Your task to perform on an android device: open a new tab in the chrome app Image 0: 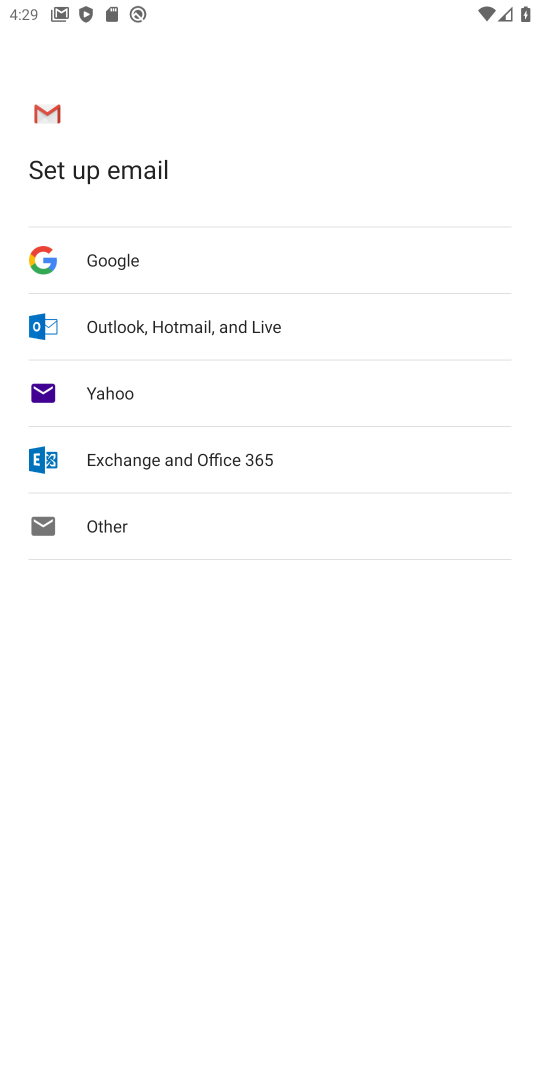
Step 0: press back button
Your task to perform on an android device: open a new tab in the chrome app Image 1: 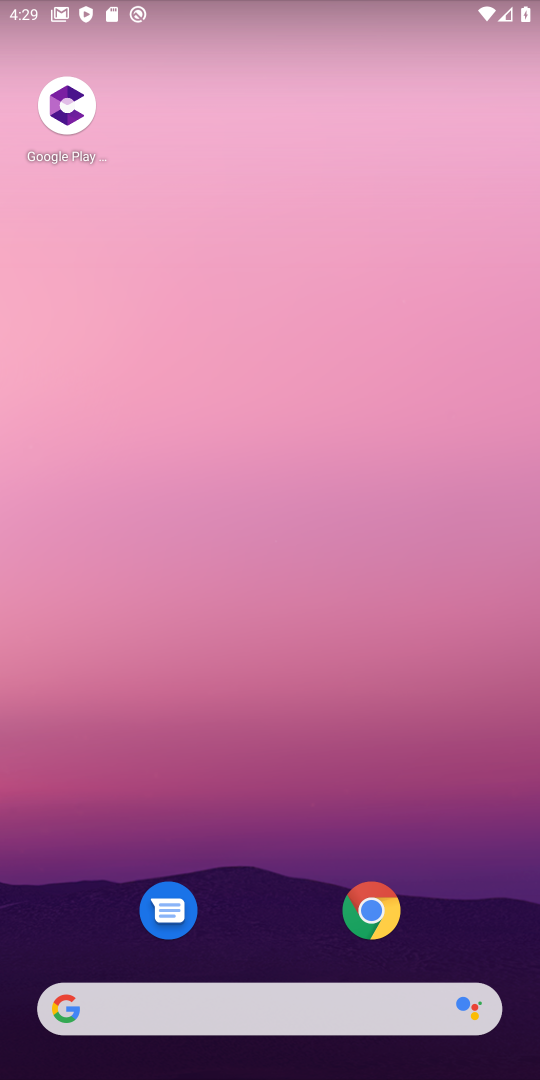
Step 1: drag from (333, 743) to (322, 442)
Your task to perform on an android device: open a new tab in the chrome app Image 2: 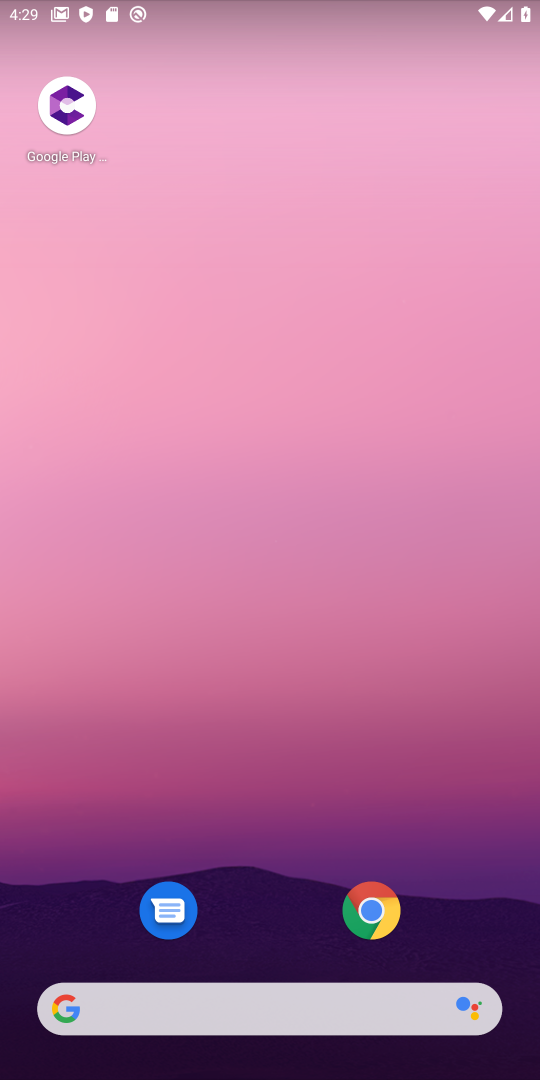
Step 2: drag from (327, 677) to (319, 504)
Your task to perform on an android device: open a new tab in the chrome app Image 3: 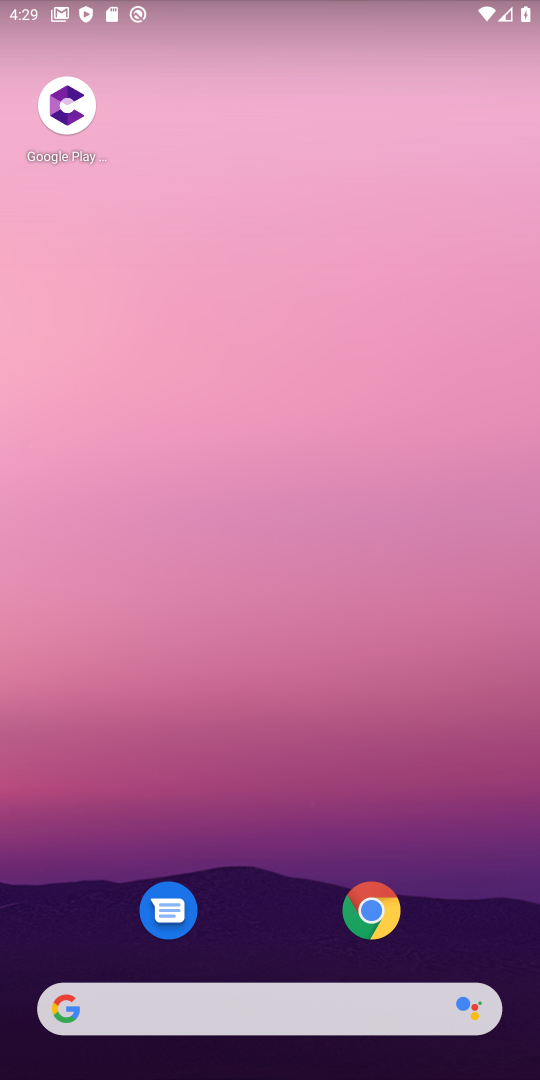
Step 3: drag from (368, 965) to (194, 184)
Your task to perform on an android device: open a new tab in the chrome app Image 4: 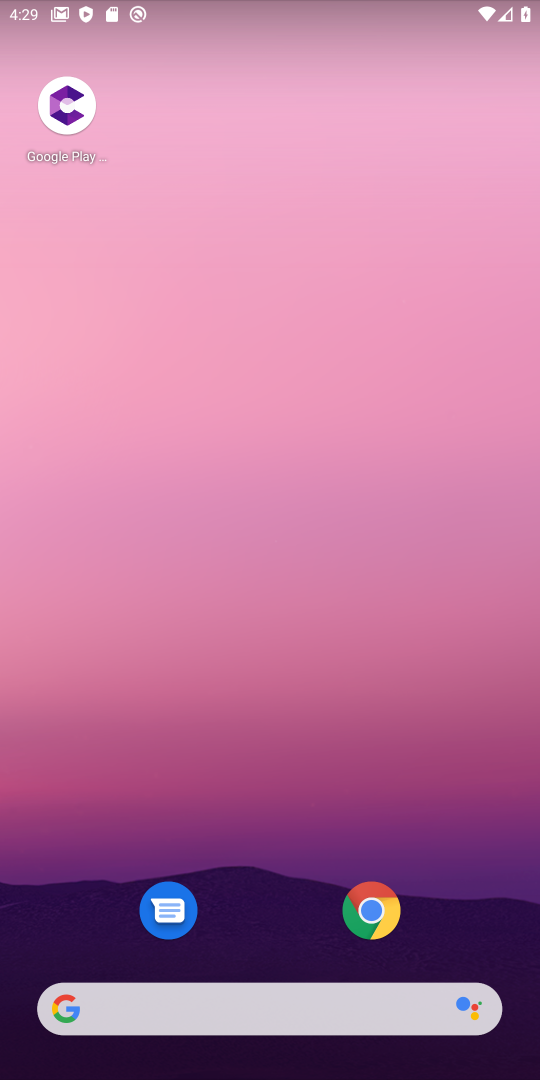
Step 4: click (127, 119)
Your task to perform on an android device: open a new tab in the chrome app Image 5: 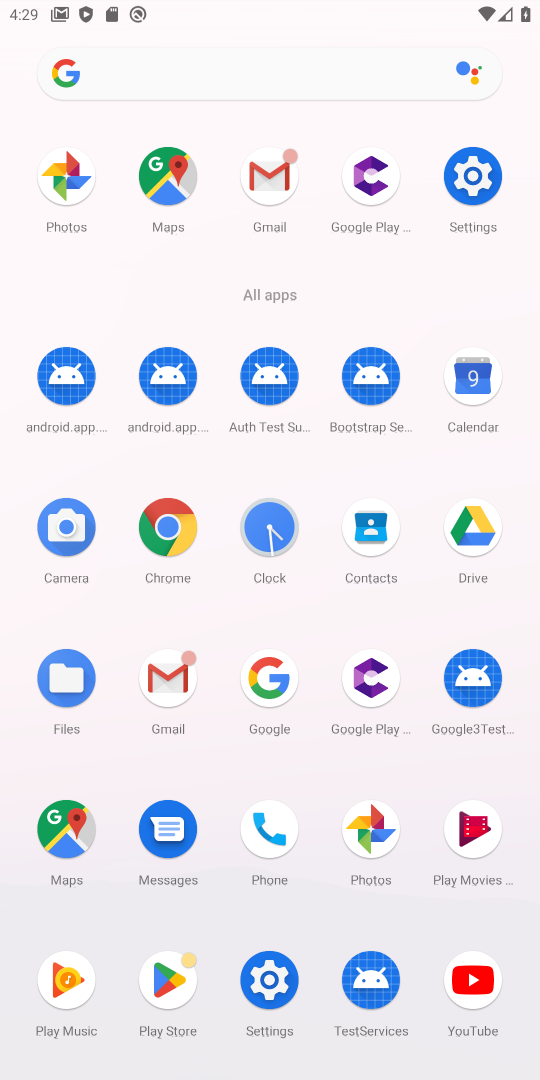
Step 5: click (171, 530)
Your task to perform on an android device: open a new tab in the chrome app Image 6: 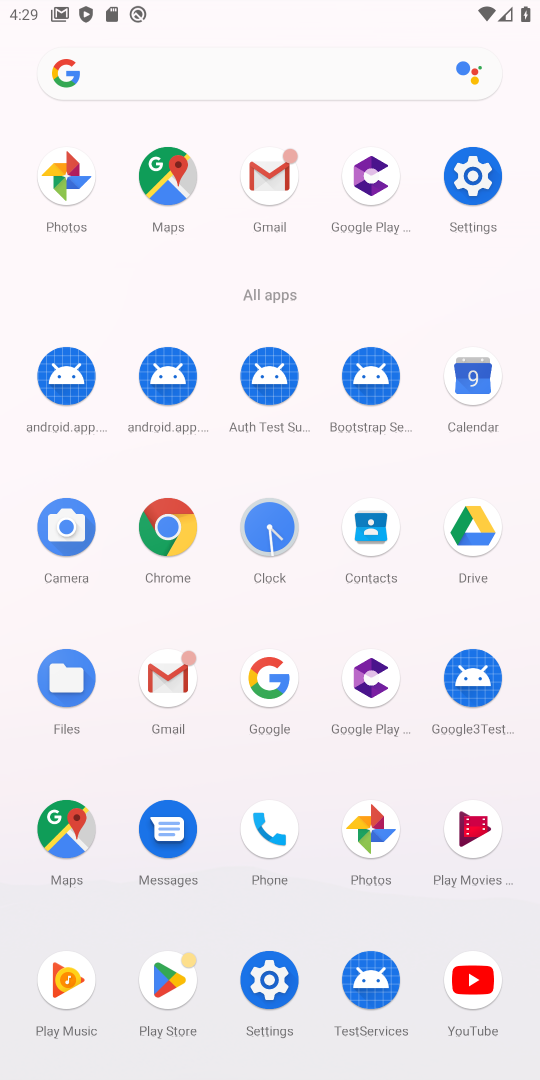
Step 6: click (170, 532)
Your task to perform on an android device: open a new tab in the chrome app Image 7: 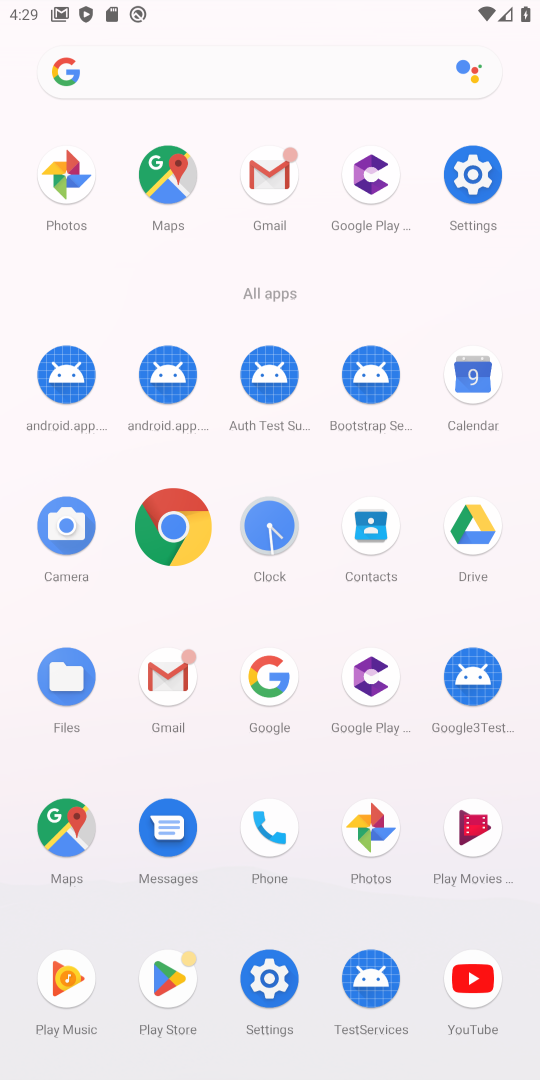
Step 7: click (179, 541)
Your task to perform on an android device: open a new tab in the chrome app Image 8: 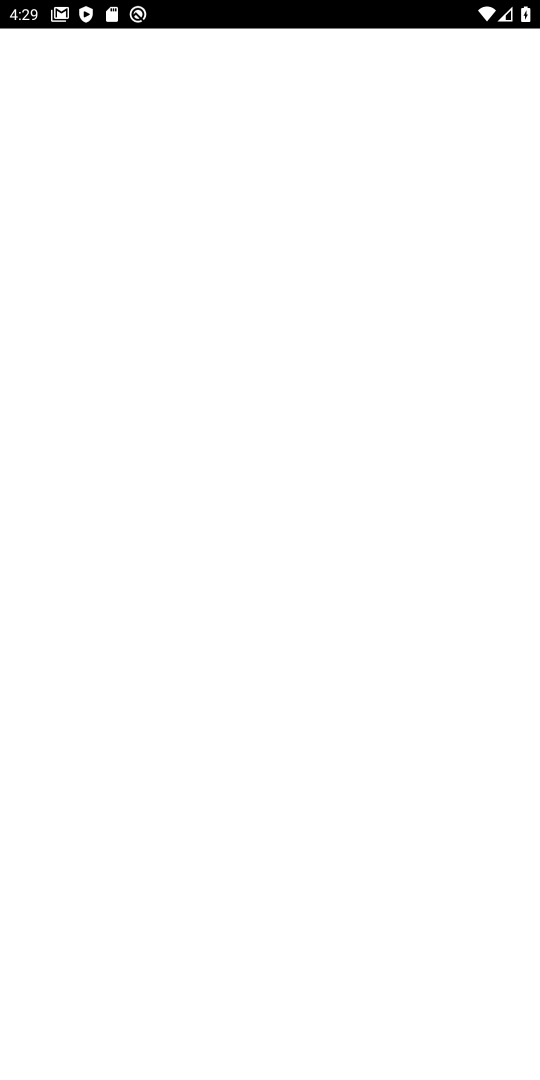
Step 8: click (180, 543)
Your task to perform on an android device: open a new tab in the chrome app Image 9: 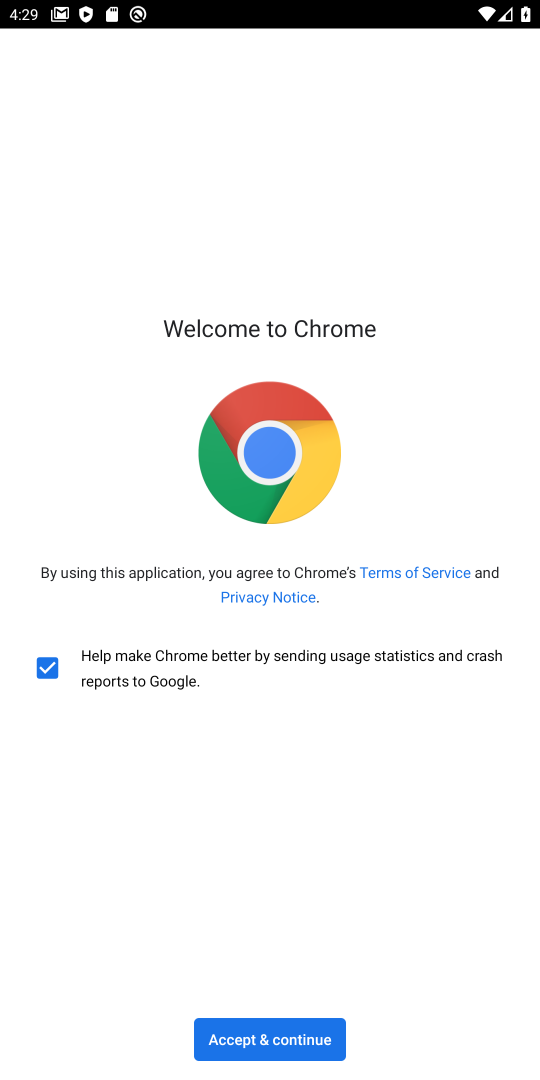
Step 9: click (295, 1039)
Your task to perform on an android device: open a new tab in the chrome app Image 10: 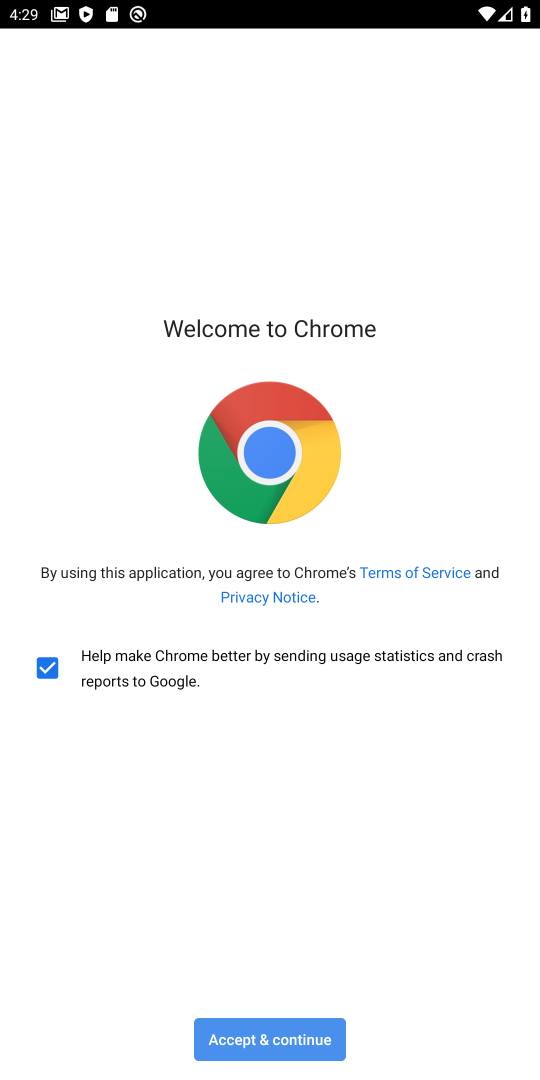
Step 10: click (299, 1036)
Your task to perform on an android device: open a new tab in the chrome app Image 11: 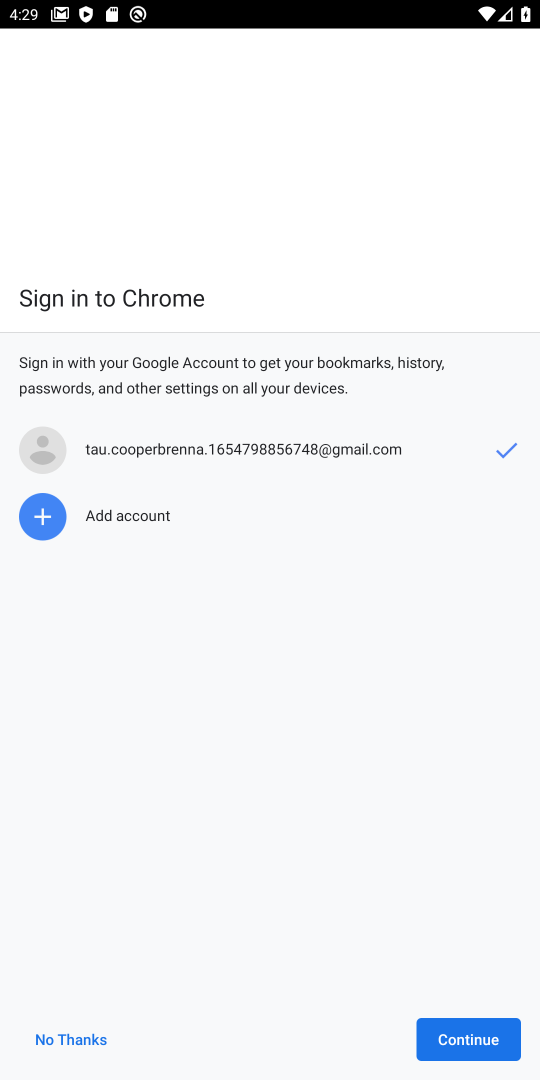
Step 11: click (293, 1036)
Your task to perform on an android device: open a new tab in the chrome app Image 12: 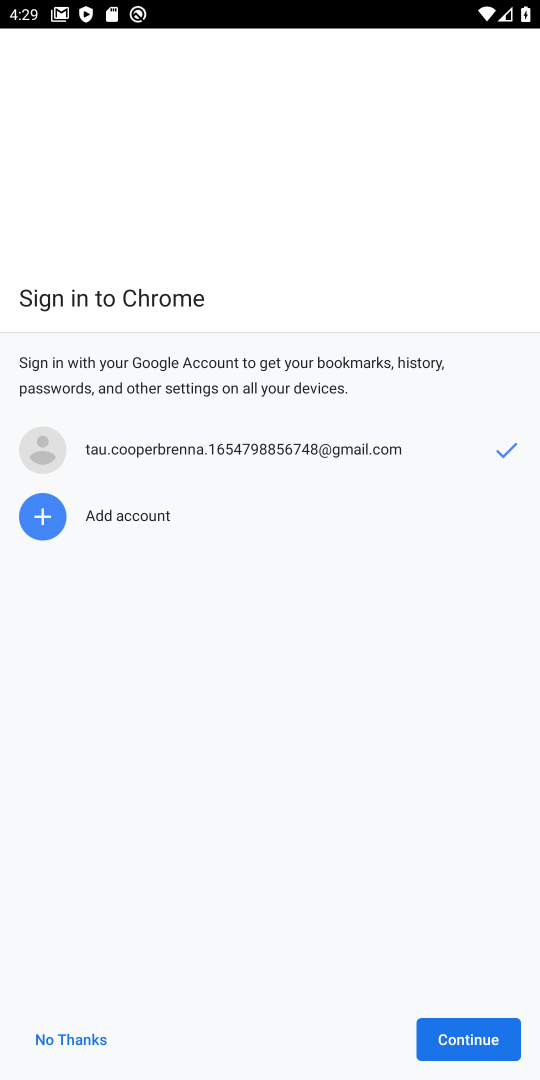
Step 12: click (80, 1037)
Your task to perform on an android device: open a new tab in the chrome app Image 13: 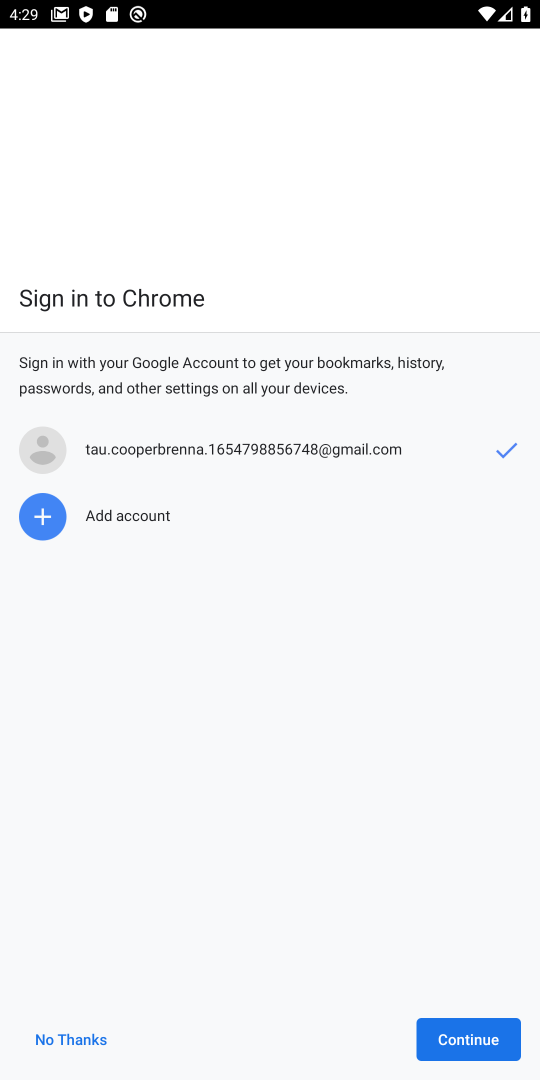
Step 13: click (80, 1037)
Your task to perform on an android device: open a new tab in the chrome app Image 14: 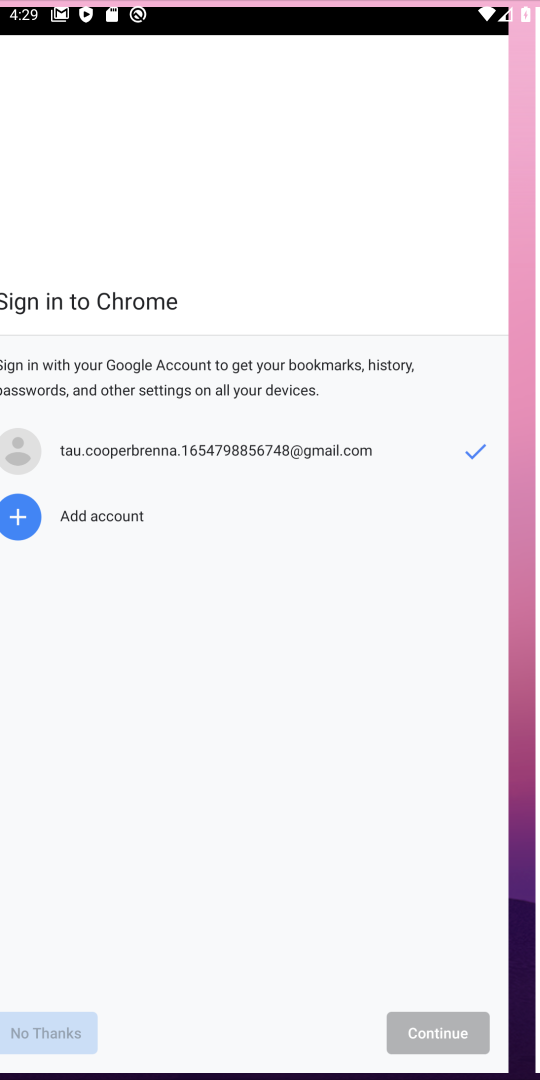
Step 14: click (80, 1037)
Your task to perform on an android device: open a new tab in the chrome app Image 15: 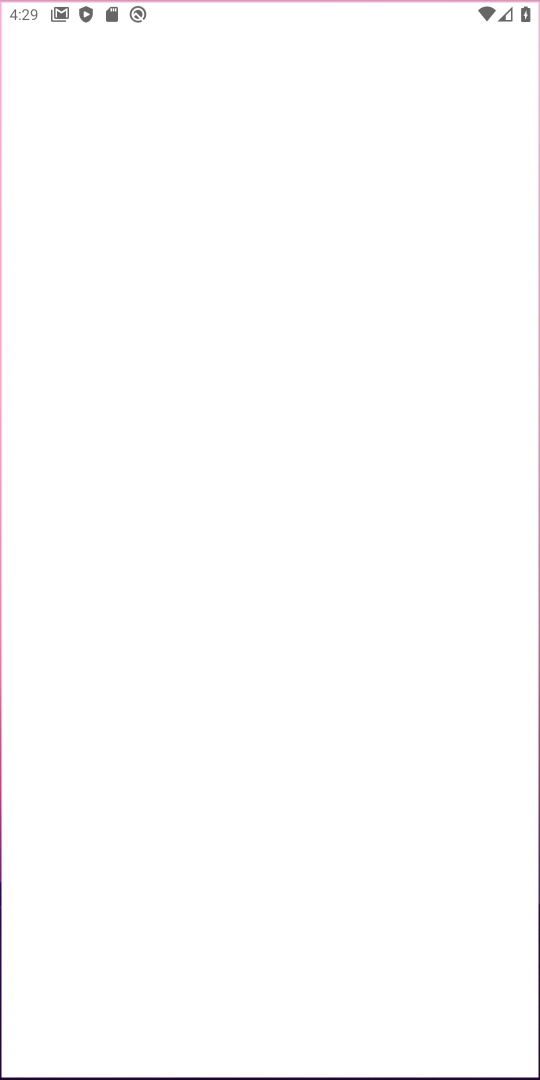
Step 15: click (80, 1037)
Your task to perform on an android device: open a new tab in the chrome app Image 16: 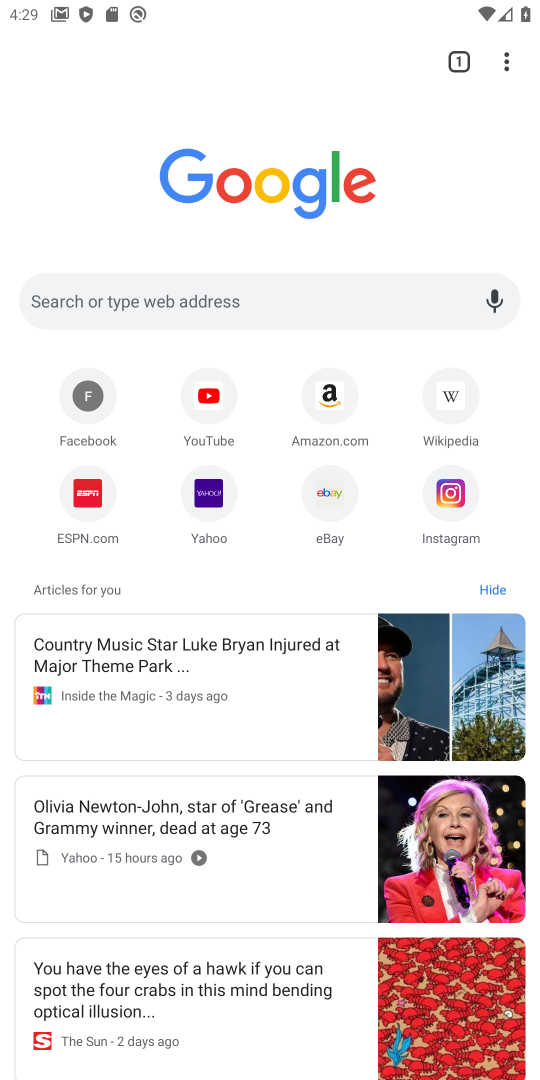
Step 16: drag from (504, 60) to (397, 673)
Your task to perform on an android device: open a new tab in the chrome app Image 17: 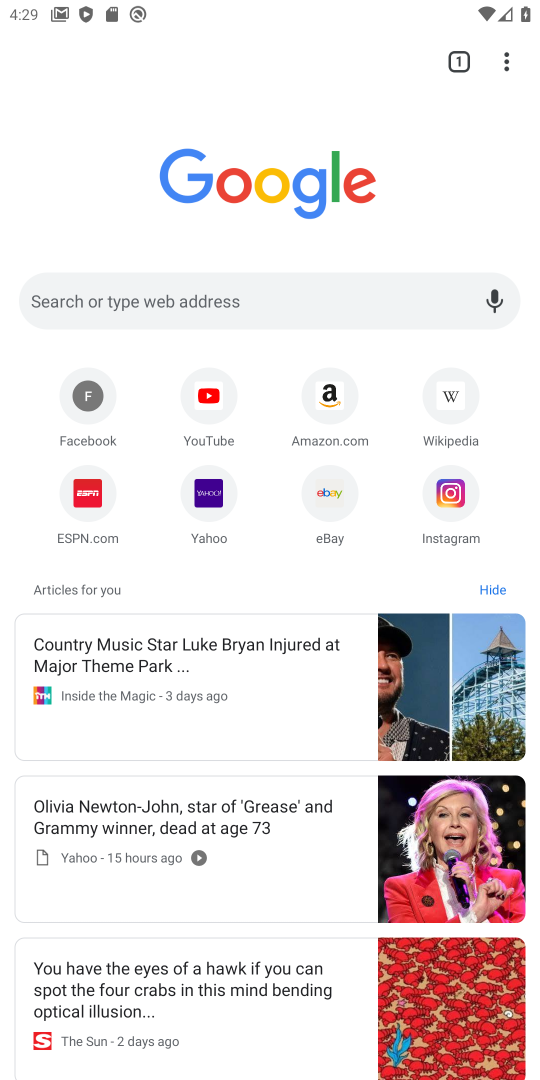
Step 17: click (254, 98)
Your task to perform on an android device: open a new tab in the chrome app Image 18: 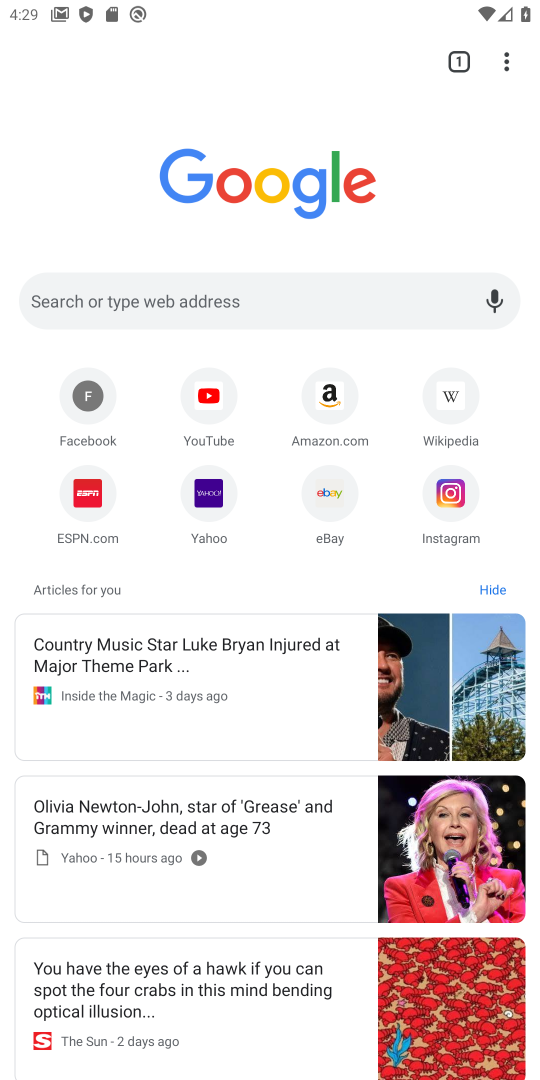
Step 18: click (254, 97)
Your task to perform on an android device: open a new tab in the chrome app Image 19: 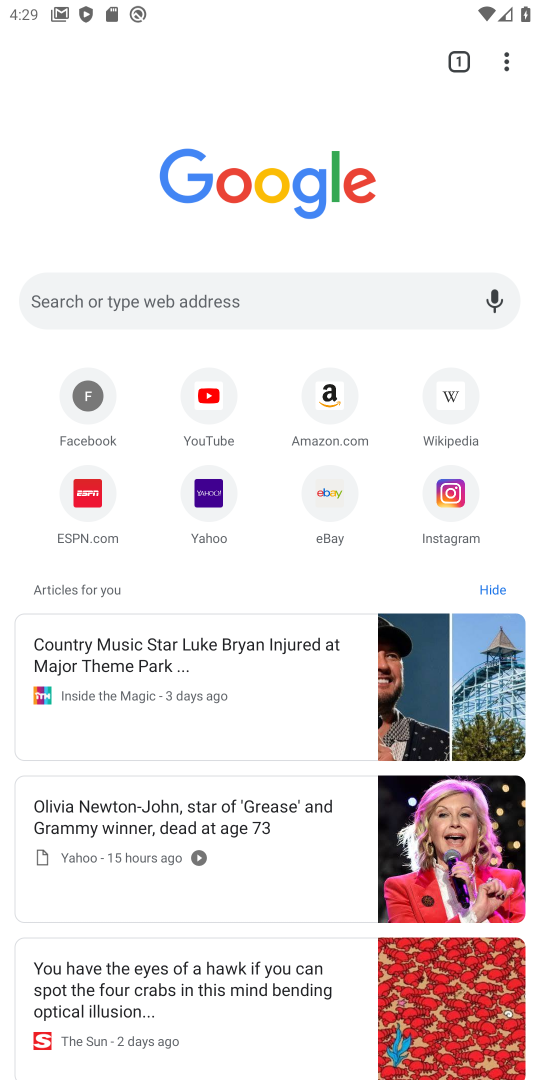
Step 19: click (501, 57)
Your task to perform on an android device: open a new tab in the chrome app Image 20: 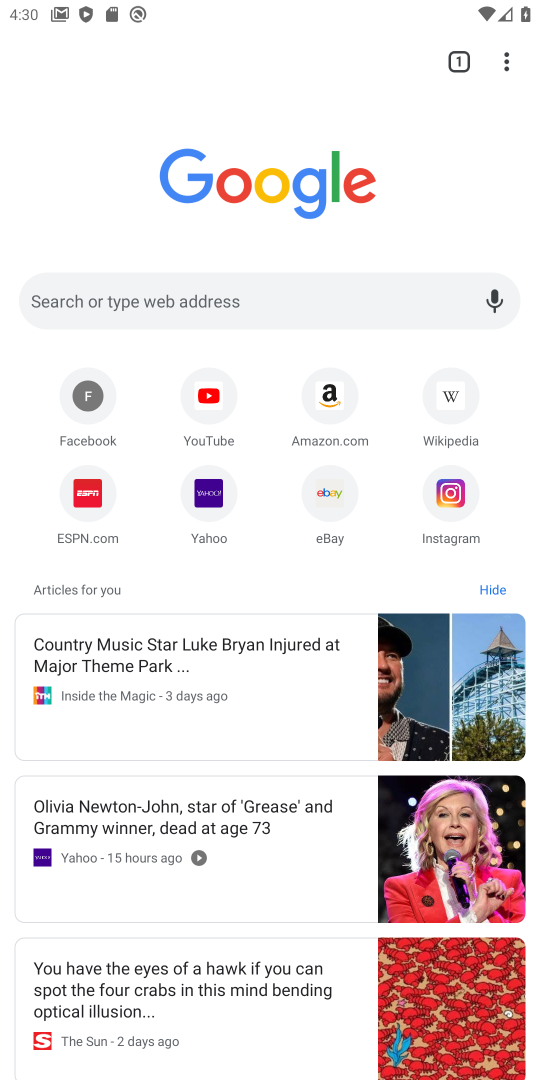
Step 20: task complete